Your task to perform on an android device: Open calendar and show me the third week of next month Image 0: 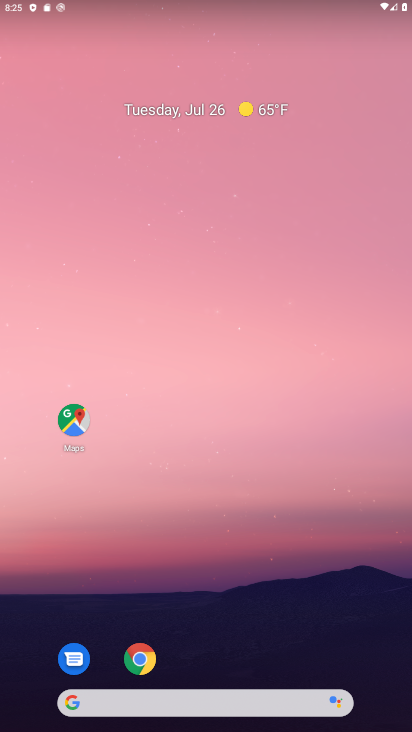
Step 0: click (145, 670)
Your task to perform on an android device: Open calendar and show me the third week of next month Image 1: 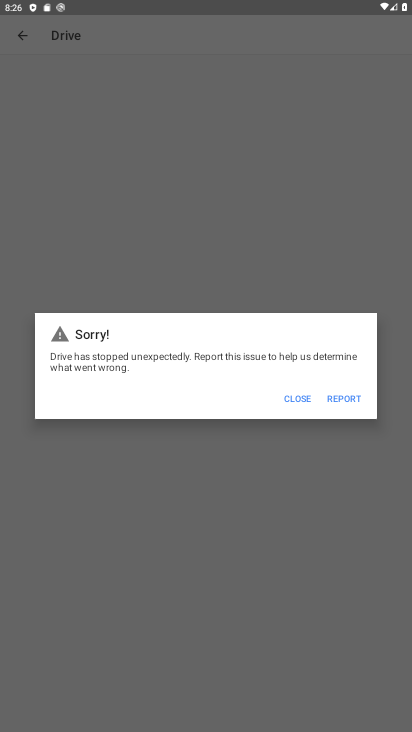
Step 1: click (301, 394)
Your task to perform on an android device: Open calendar and show me the third week of next month Image 2: 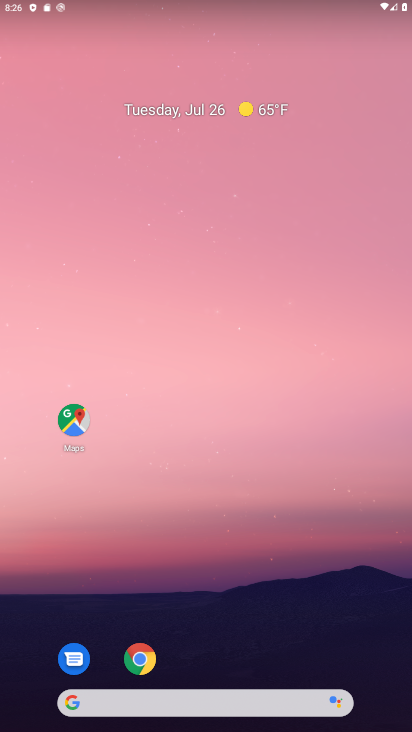
Step 2: press home button
Your task to perform on an android device: Open calendar and show me the third week of next month Image 3: 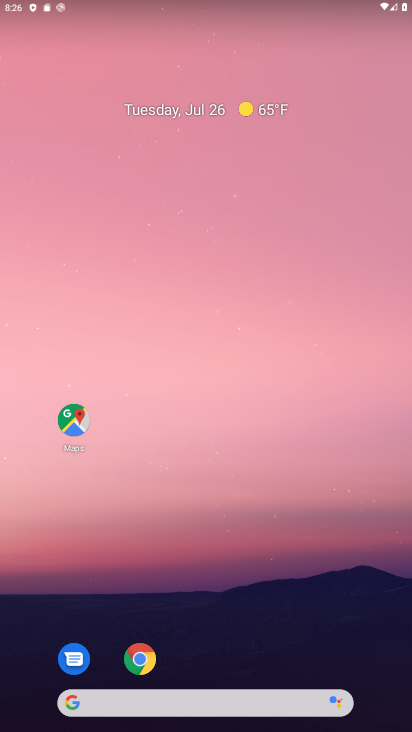
Step 3: drag from (201, 359) to (230, 196)
Your task to perform on an android device: Open calendar and show me the third week of next month Image 4: 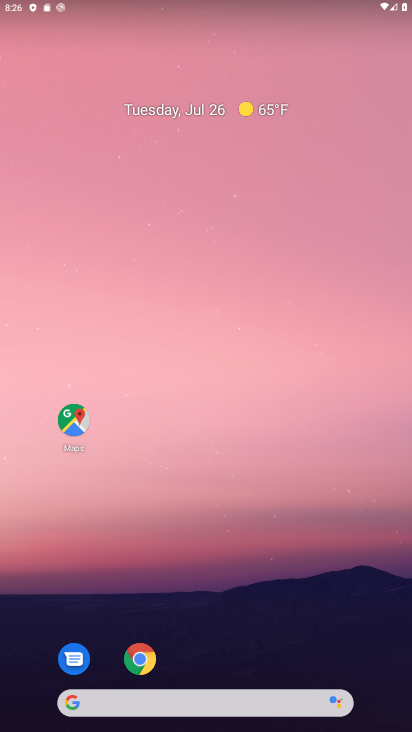
Step 4: drag from (234, 625) to (261, 80)
Your task to perform on an android device: Open calendar and show me the third week of next month Image 5: 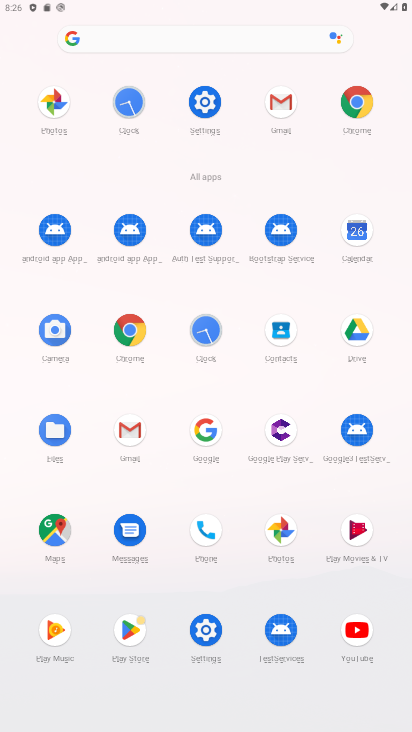
Step 5: click (355, 255)
Your task to perform on an android device: Open calendar and show me the third week of next month Image 6: 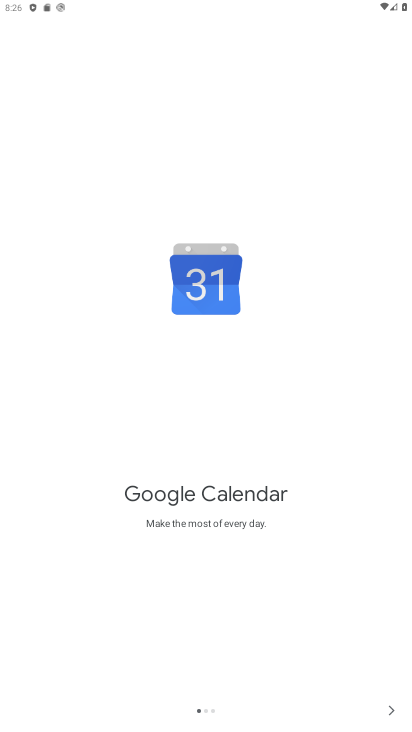
Step 6: click (388, 709)
Your task to perform on an android device: Open calendar and show me the third week of next month Image 7: 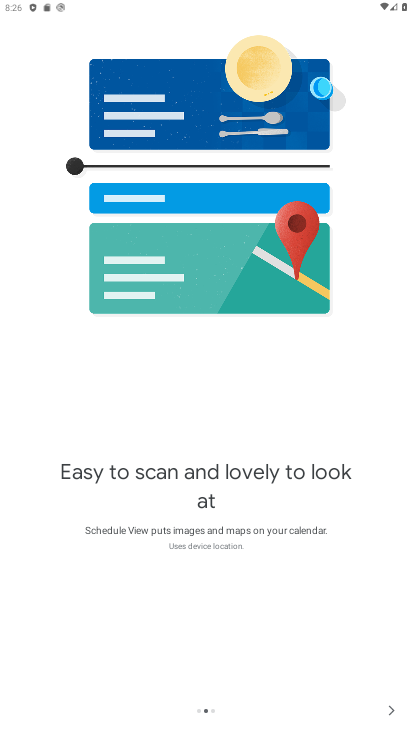
Step 7: click (388, 709)
Your task to perform on an android device: Open calendar and show me the third week of next month Image 8: 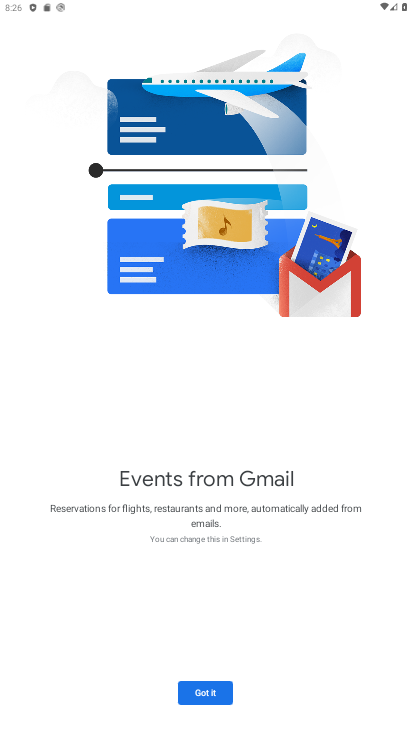
Step 8: click (207, 693)
Your task to perform on an android device: Open calendar and show me the third week of next month Image 9: 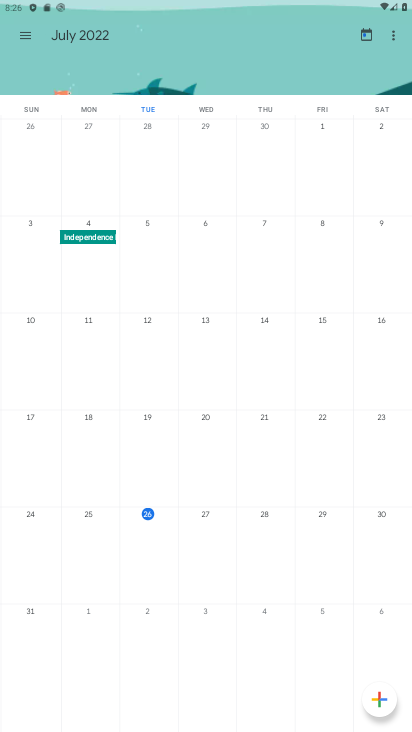
Step 9: drag from (309, 439) to (33, 383)
Your task to perform on an android device: Open calendar and show me the third week of next month Image 10: 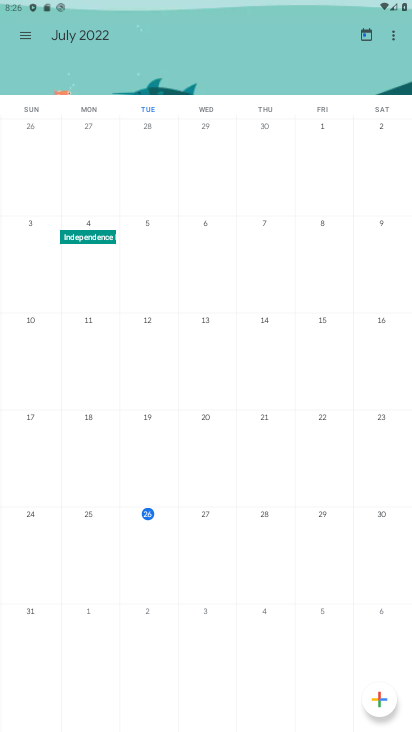
Step 10: click (191, 467)
Your task to perform on an android device: Open calendar and show me the third week of next month Image 11: 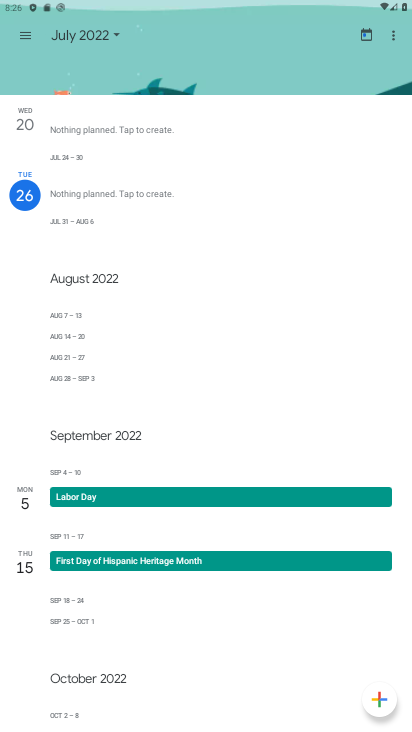
Step 11: click (73, 38)
Your task to perform on an android device: Open calendar and show me the third week of next month Image 12: 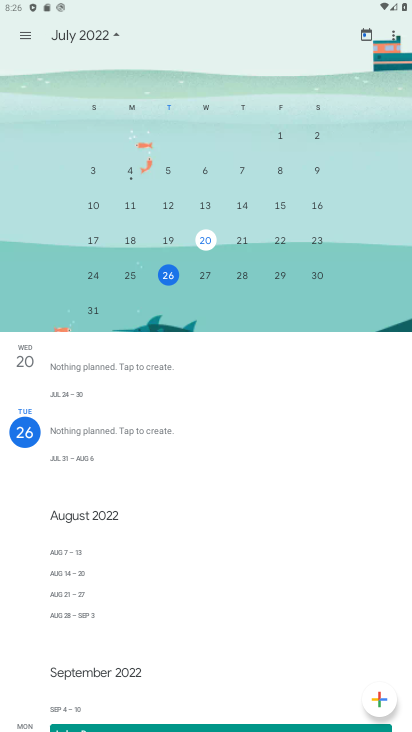
Step 12: drag from (187, 196) to (190, 160)
Your task to perform on an android device: Open calendar and show me the third week of next month Image 13: 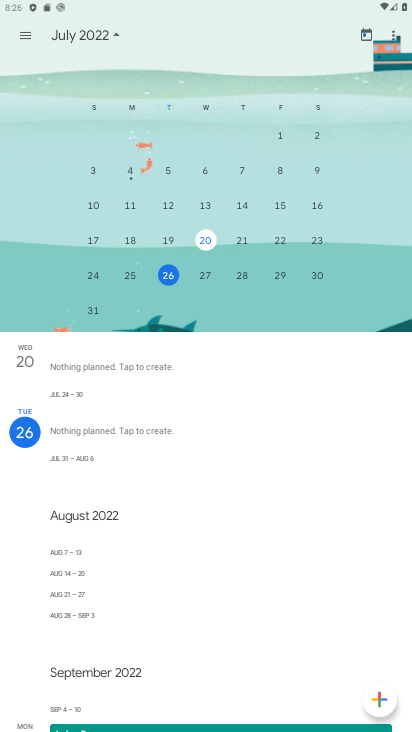
Step 13: drag from (307, 194) to (0, 167)
Your task to perform on an android device: Open calendar and show me the third week of next month Image 14: 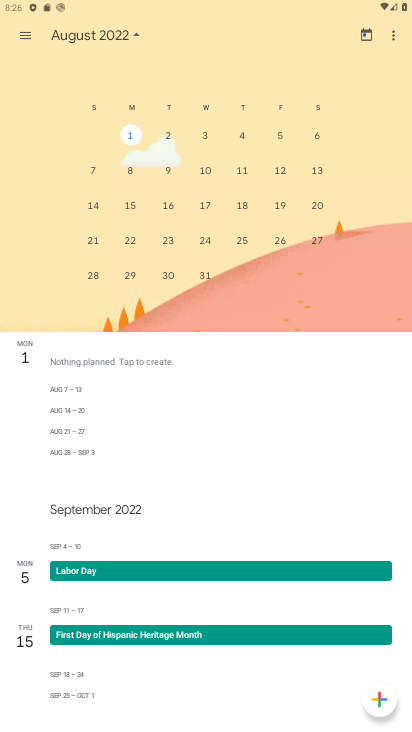
Step 14: click (87, 202)
Your task to perform on an android device: Open calendar and show me the third week of next month Image 15: 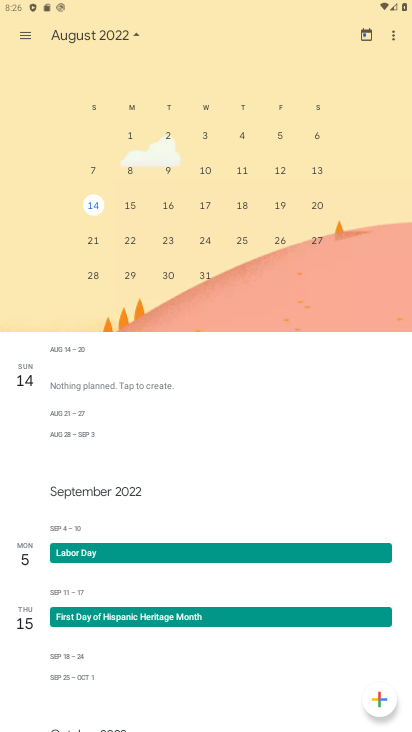
Step 15: task complete